Your task to perform on an android device: change the clock display to digital Image 0: 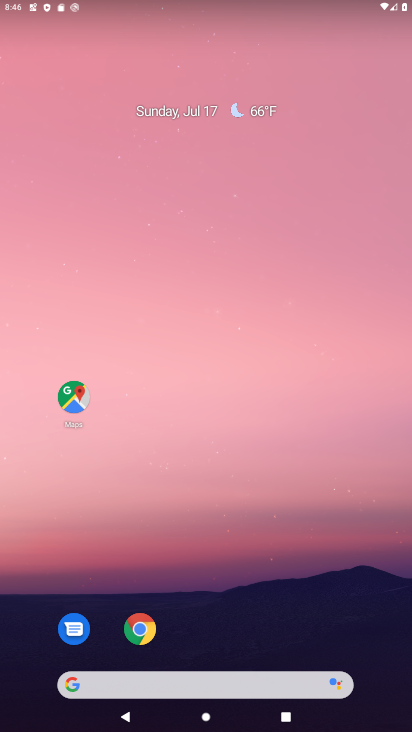
Step 0: press home button
Your task to perform on an android device: change the clock display to digital Image 1: 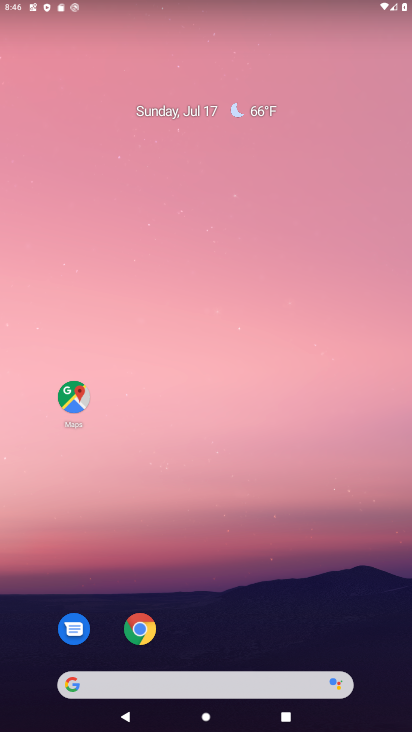
Step 1: drag from (228, 642) to (251, 0)
Your task to perform on an android device: change the clock display to digital Image 2: 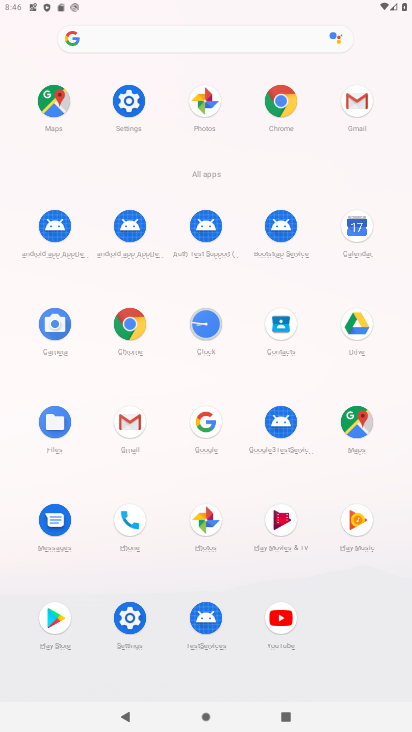
Step 2: click (203, 319)
Your task to perform on an android device: change the clock display to digital Image 3: 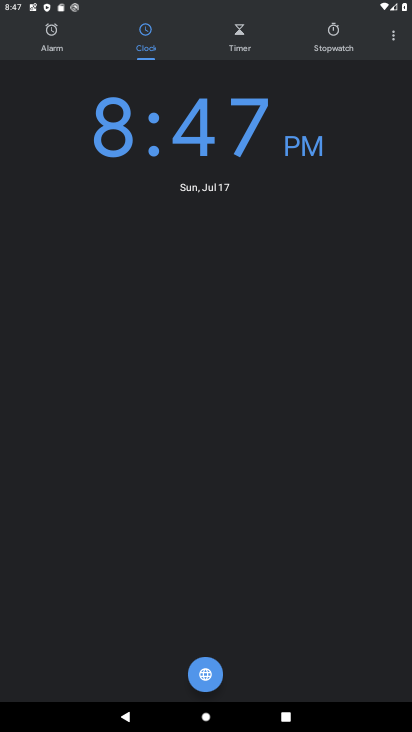
Step 3: click (397, 36)
Your task to perform on an android device: change the clock display to digital Image 4: 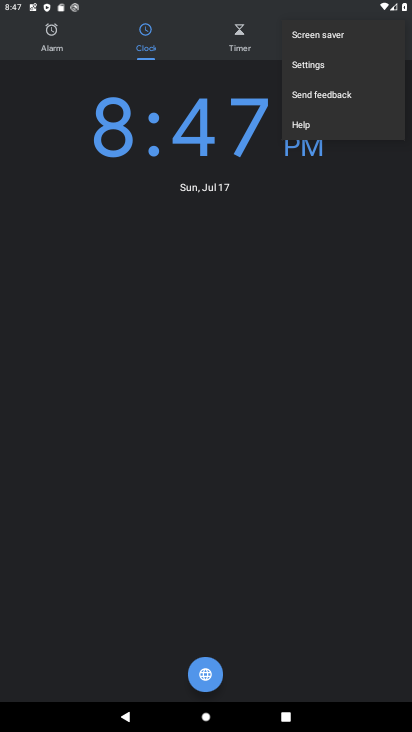
Step 4: click (327, 64)
Your task to perform on an android device: change the clock display to digital Image 5: 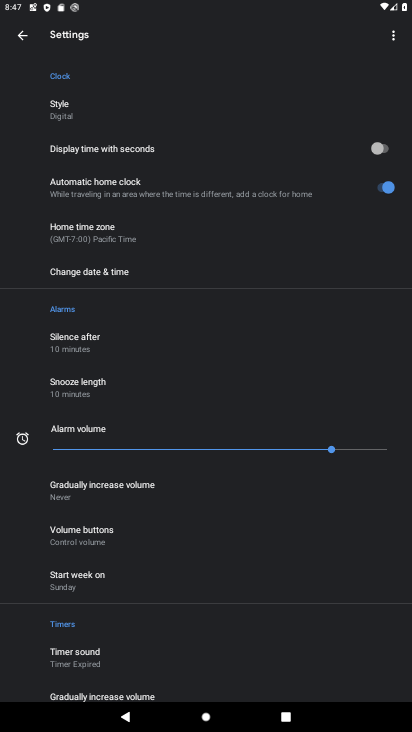
Step 5: click (84, 111)
Your task to perform on an android device: change the clock display to digital Image 6: 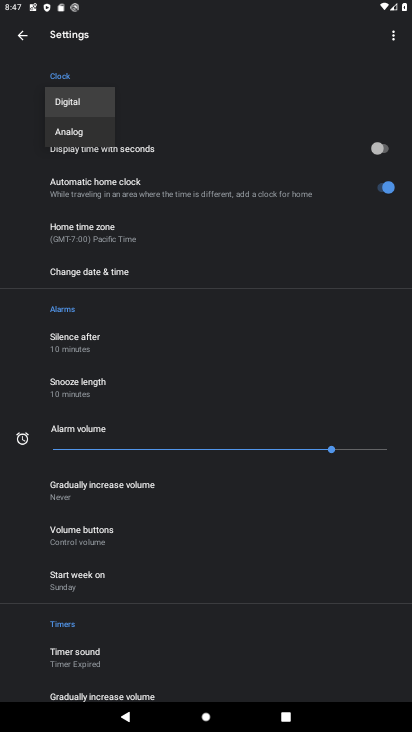
Step 6: click (84, 104)
Your task to perform on an android device: change the clock display to digital Image 7: 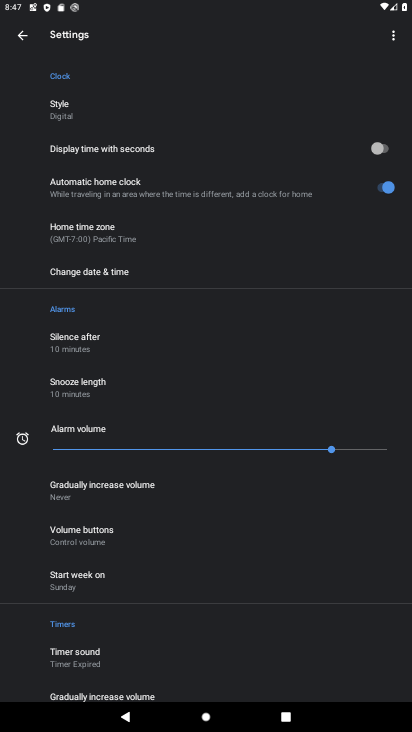
Step 7: task complete